Your task to perform on an android device: Open network settings Image 0: 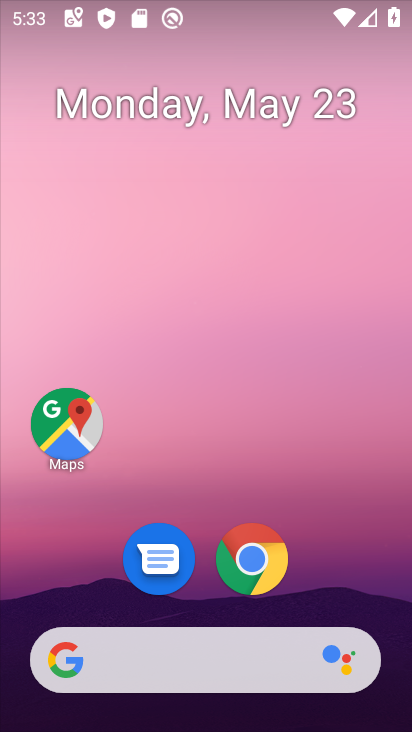
Step 0: drag from (317, 597) to (330, 39)
Your task to perform on an android device: Open network settings Image 1: 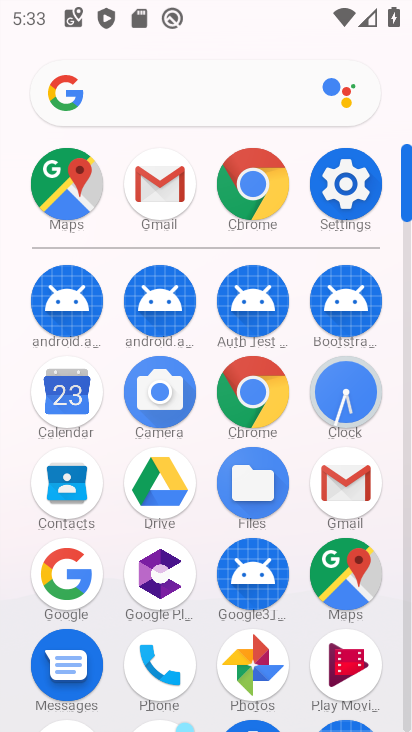
Step 1: click (341, 187)
Your task to perform on an android device: Open network settings Image 2: 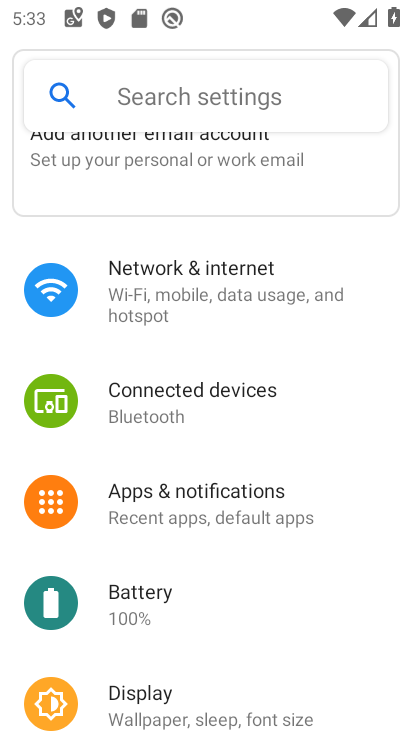
Step 2: click (231, 301)
Your task to perform on an android device: Open network settings Image 3: 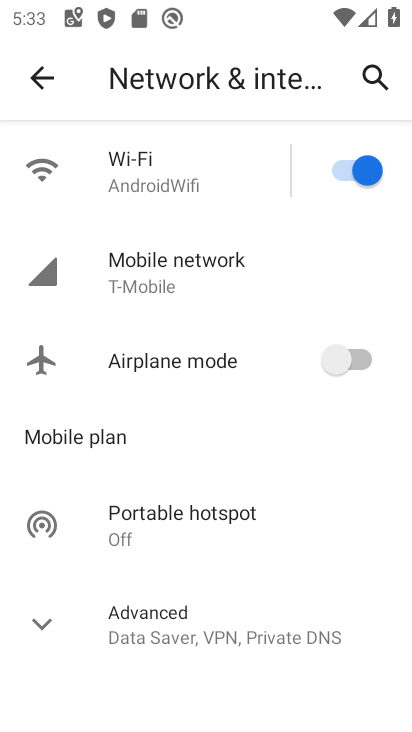
Step 3: task complete